Your task to perform on an android device: turn on javascript in the chrome app Image 0: 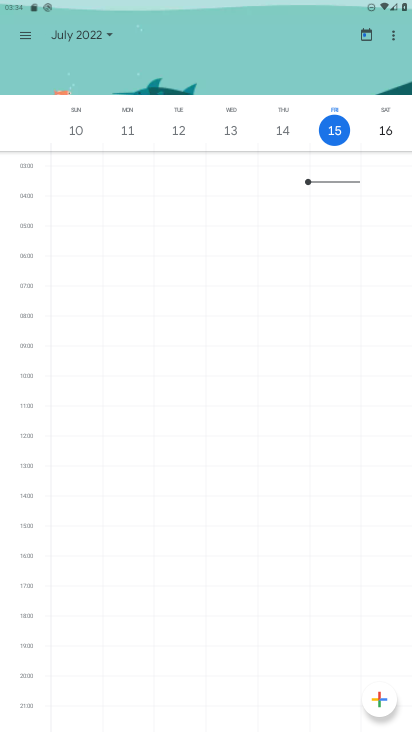
Step 0: press home button
Your task to perform on an android device: turn on javascript in the chrome app Image 1: 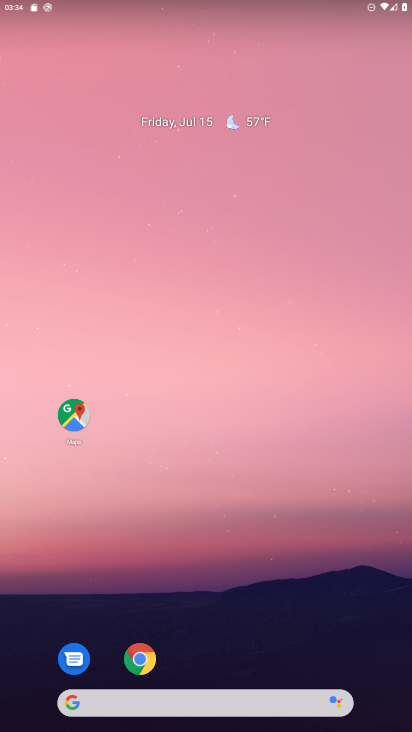
Step 1: drag from (228, 613) to (241, 105)
Your task to perform on an android device: turn on javascript in the chrome app Image 2: 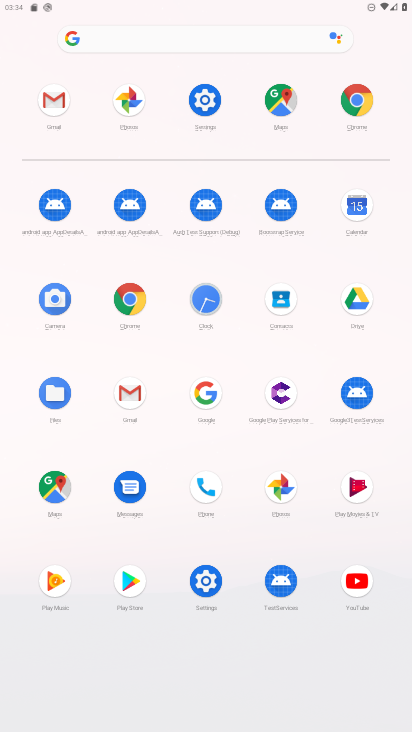
Step 2: click (131, 316)
Your task to perform on an android device: turn on javascript in the chrome app Image 3: 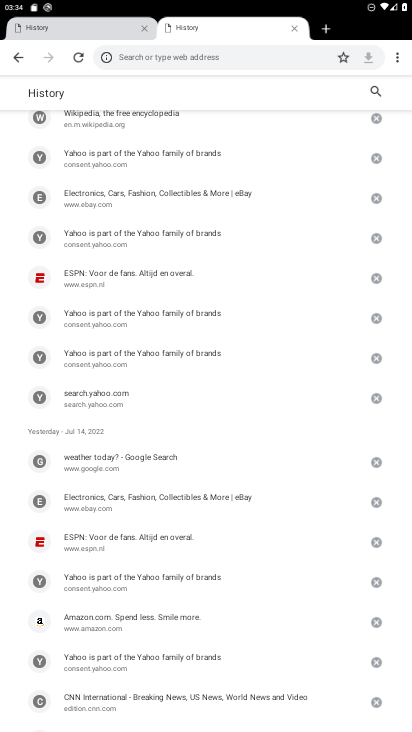
Step 3: click (397, 58)
Your task to perform on an android device: turn on javascript in the chrome app Image 4: 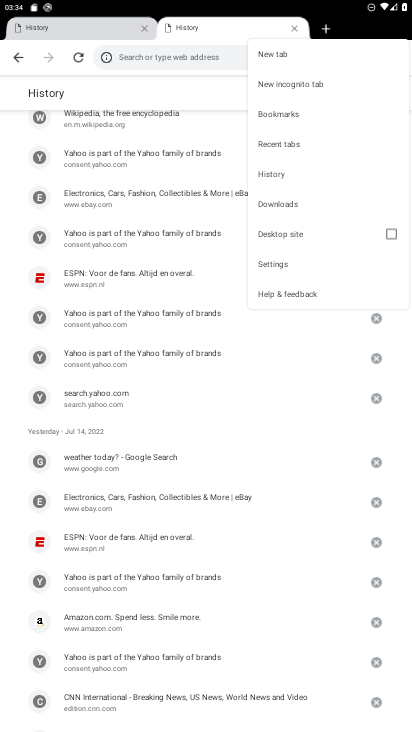
Step 4: click (284, 266)
Your task to perform on an android device: turn on javascript in the chrome app Image 5: 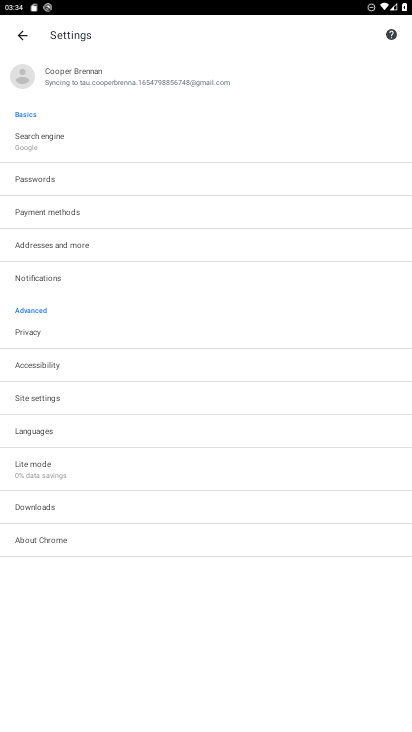
Step 5: click (56, 402)
Your task to perform on an android device: turn on javascript in the chrome app Image 6: 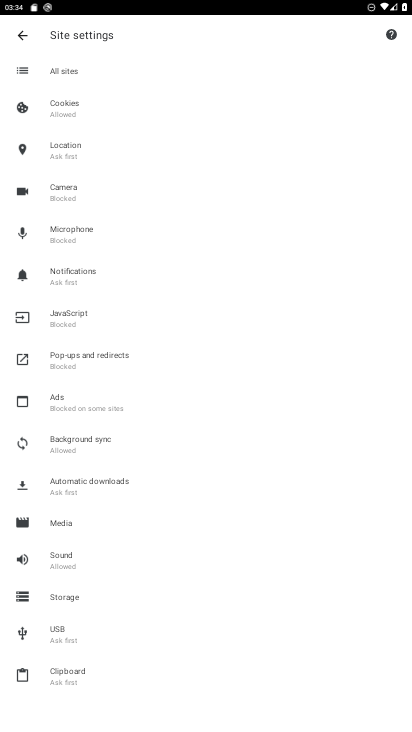
Step 6: click (91, 321)
Your task to perform on an android device: turn on javascript in the chrome app Image 7: 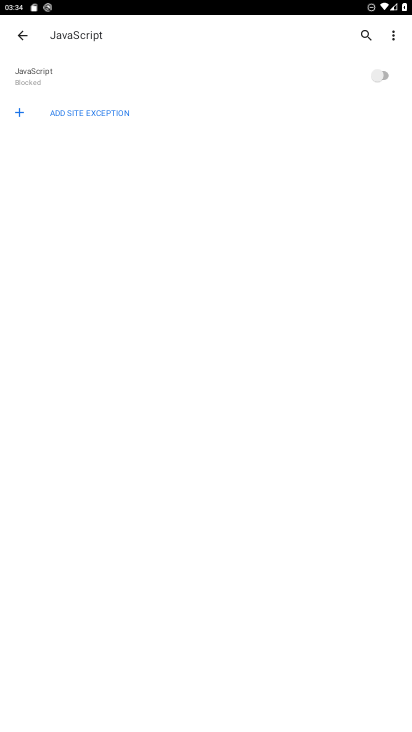
Step 7: click (369, 64)
Your task to perform on an android device: turn on javascript in the chrome app Image 8: 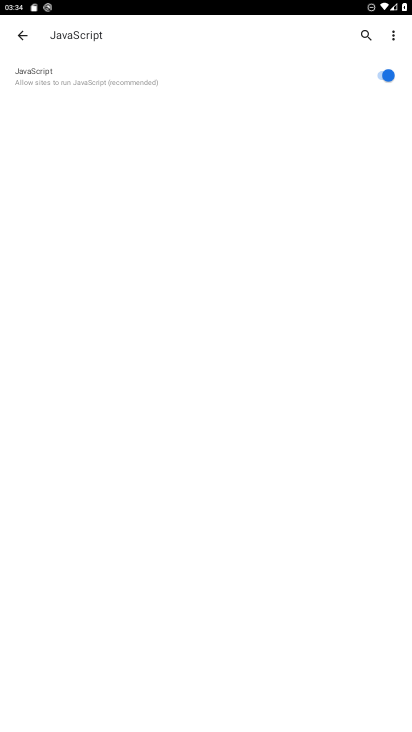
Step 8: task complete